Your task to perform on an android device: Go to sound settings Image 0: 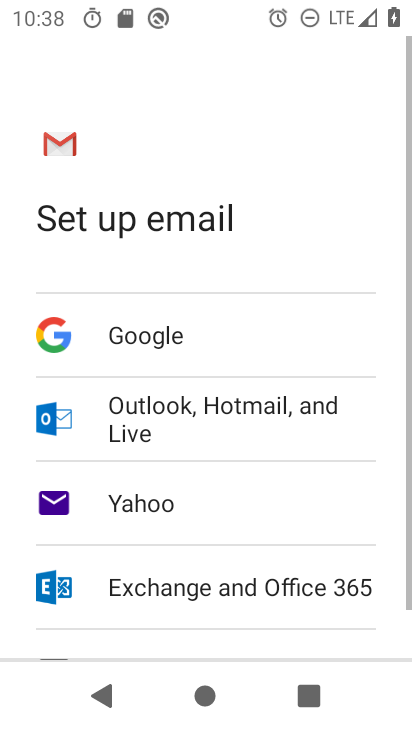
Step 0: press home button
Your task to perform on an android device: Go to sound settings Image 1: 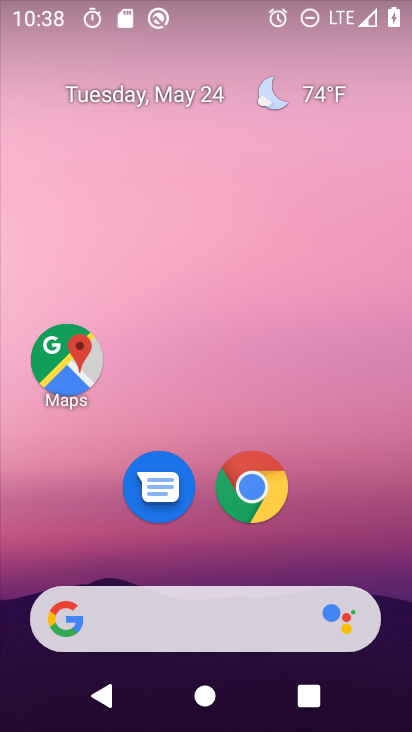
Step 1: drag from (381, 583) to (410, 11)
Your task to perform on an android device: Go to sound settings Image 2: 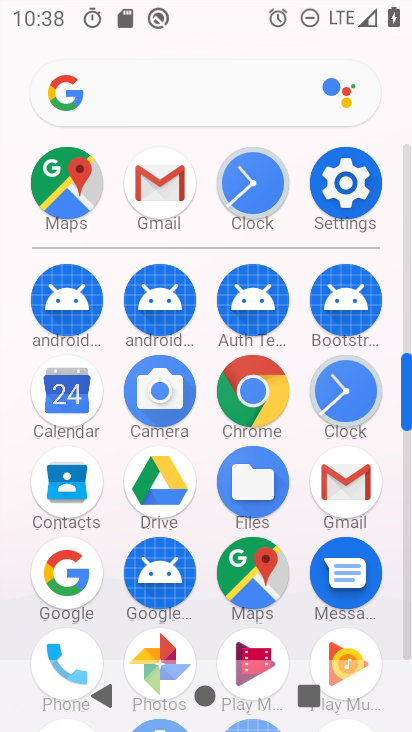
Step 2: click (342, 184)
Your task to perform on an android device: Go to sound settings Image 3: 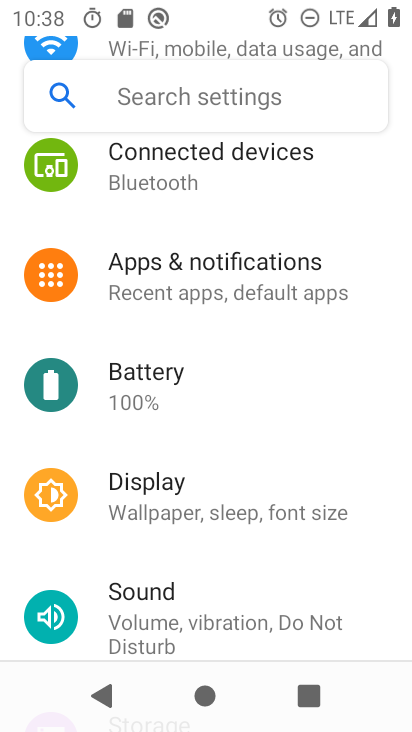
Step 3: click (136, 632)
Your task to perform on an android device: Go to sound settings Image 4: 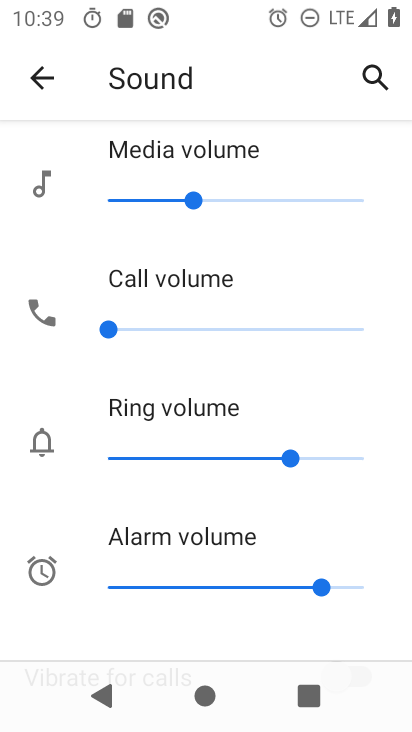
Step 4: task complete